Your task to perform on an android device: Open Wikipedia Image 0: 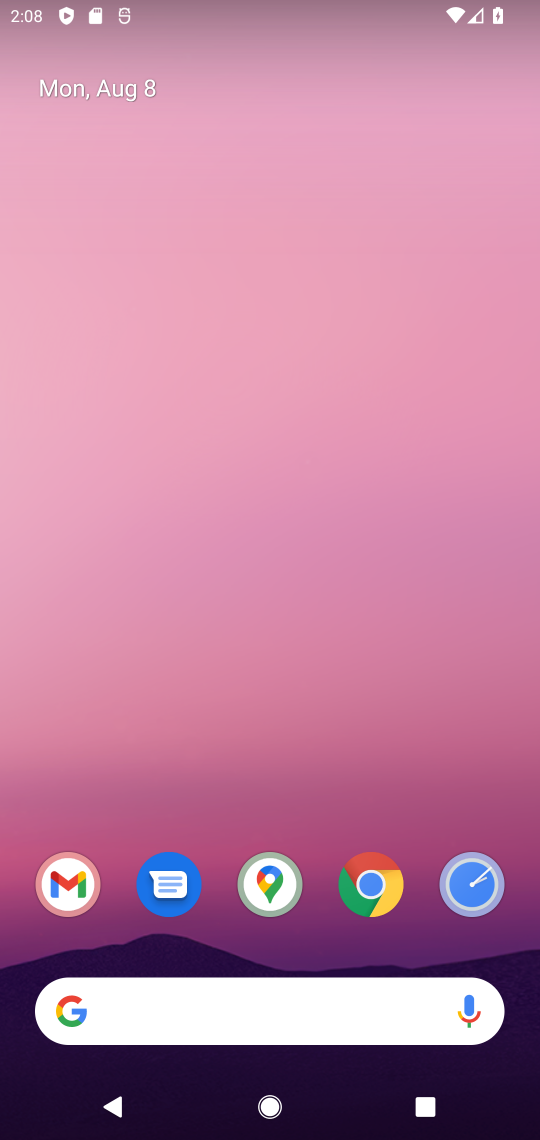
Step 0: click (375, 893)
Your task to perform on an android device: Open Wikipedia Image 1: 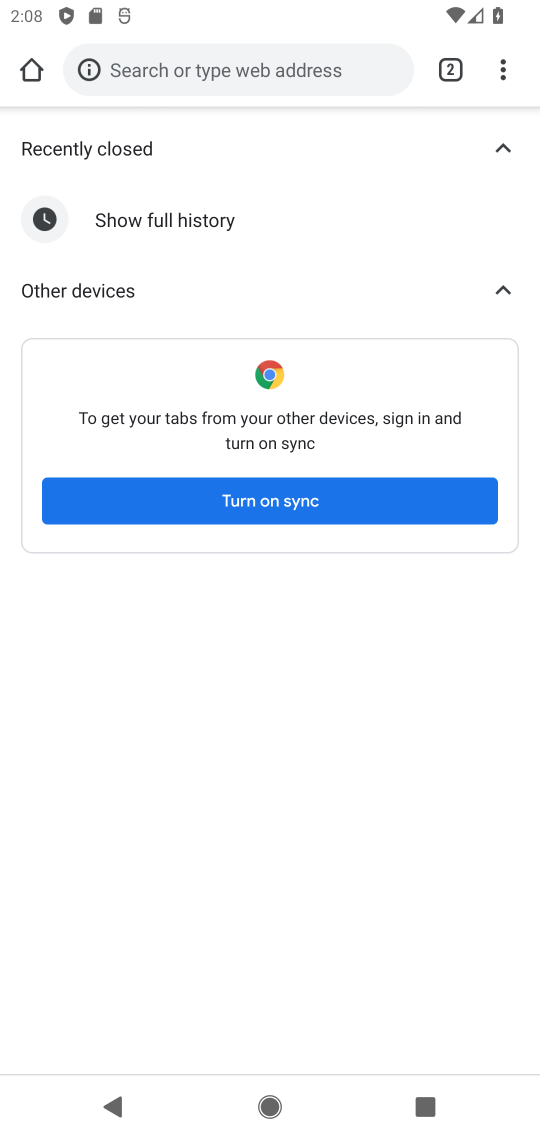
Step 1: click (507, 58)
Your task to perform on an android device: Open Wikipedia Image 2: 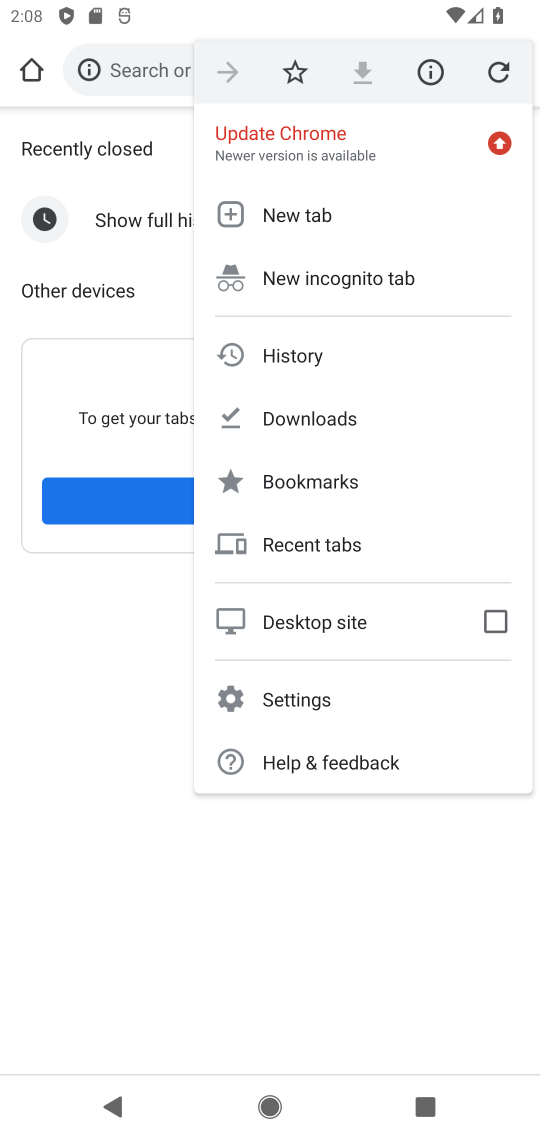
Step 2: click (322, 208)
Your task to perform on an android device: Open Wikipedia Image 3: 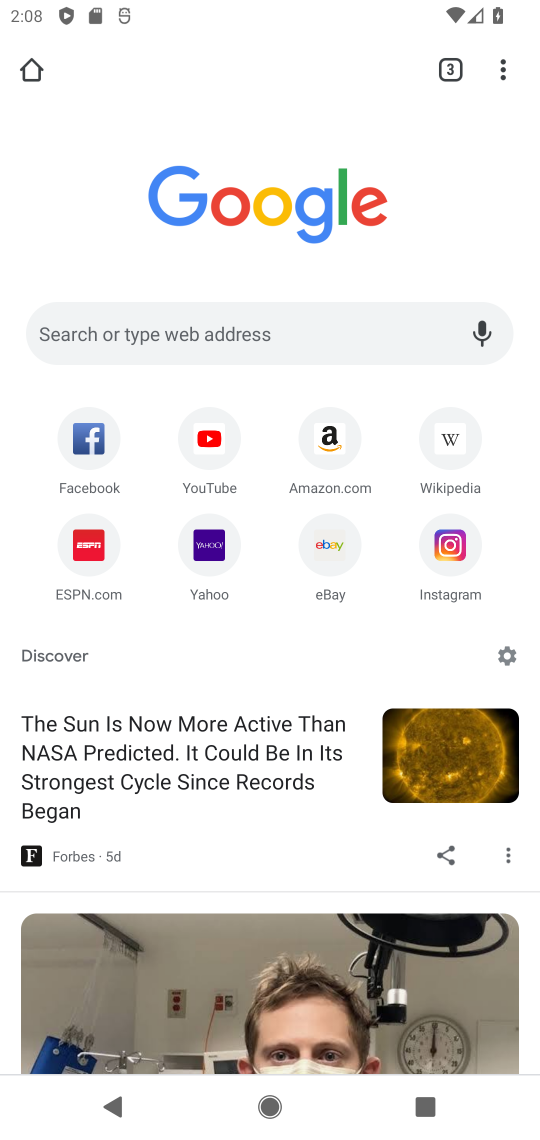
Step 3: click (455, 442)
Your task to perform on an android device: Open Wikipedia Image 4: 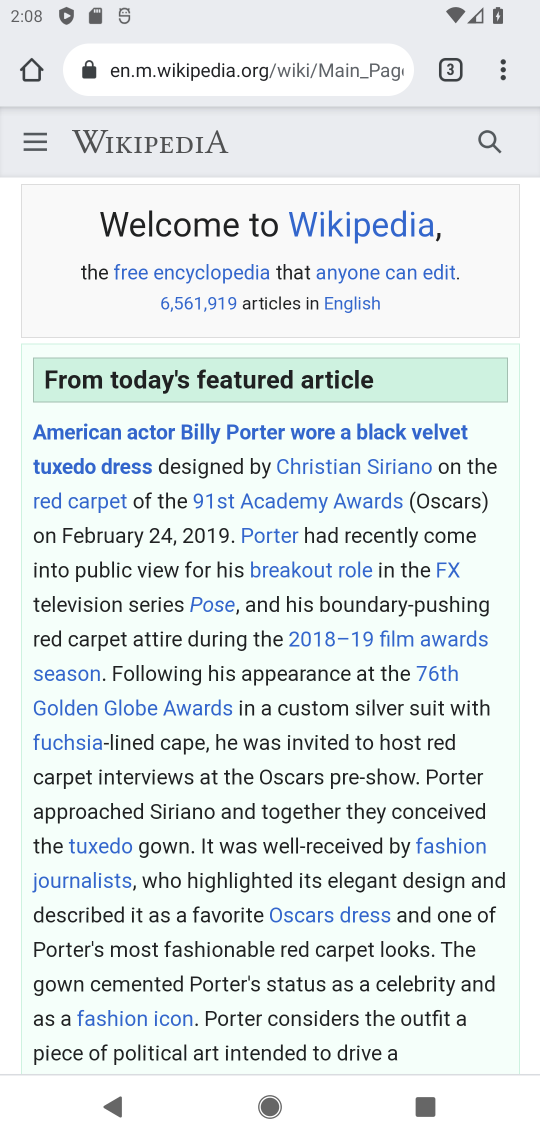
Step 4: task complete